Your task to perform on an android device: Is it going to rain this weekend? Image 0: 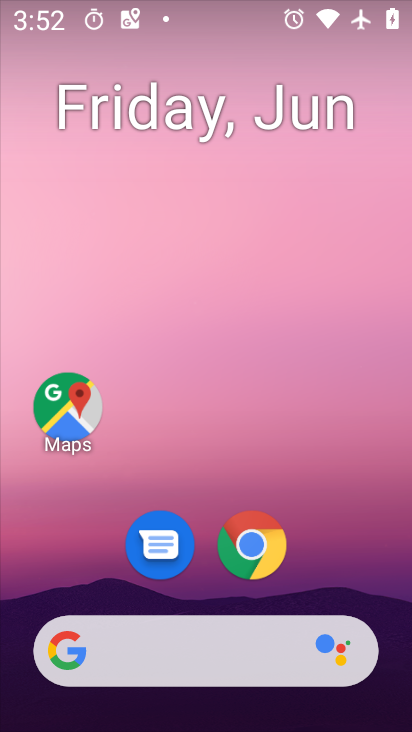
Step 0: click (166, 643)
Your task to perform on an android device: Is it going to rain this weekend? Image 1: 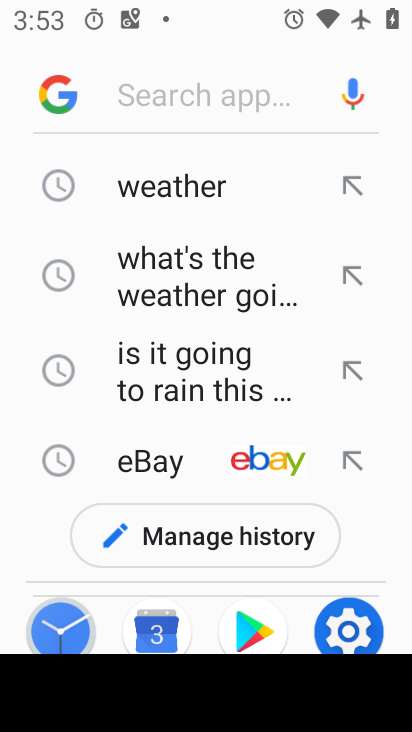
Step 1: type "is it going to rain this weekend"
Your task to perform on an android device: Is it going to rain this weekend? Image 2: 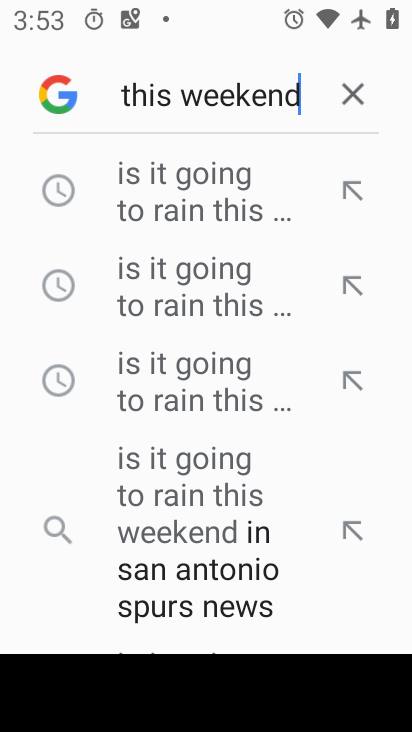
Step 2: click (200, 157)
Your task to perform on an android device: Is it going to rain this weekend? Image 3: 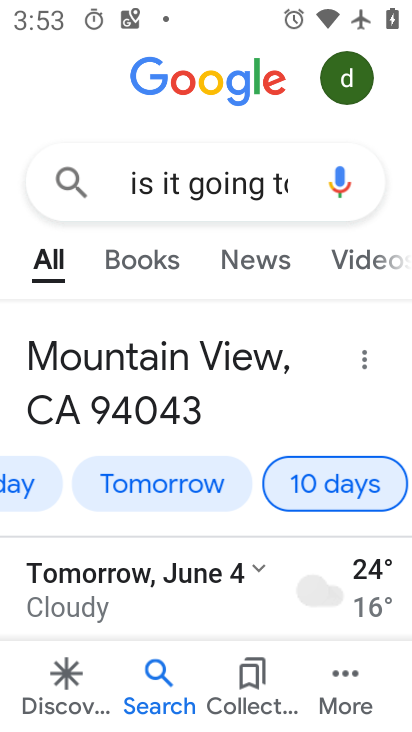
Step 3: task complete